Your task to perform on an android device: Open calendar and show me the third week of next month Image 0: 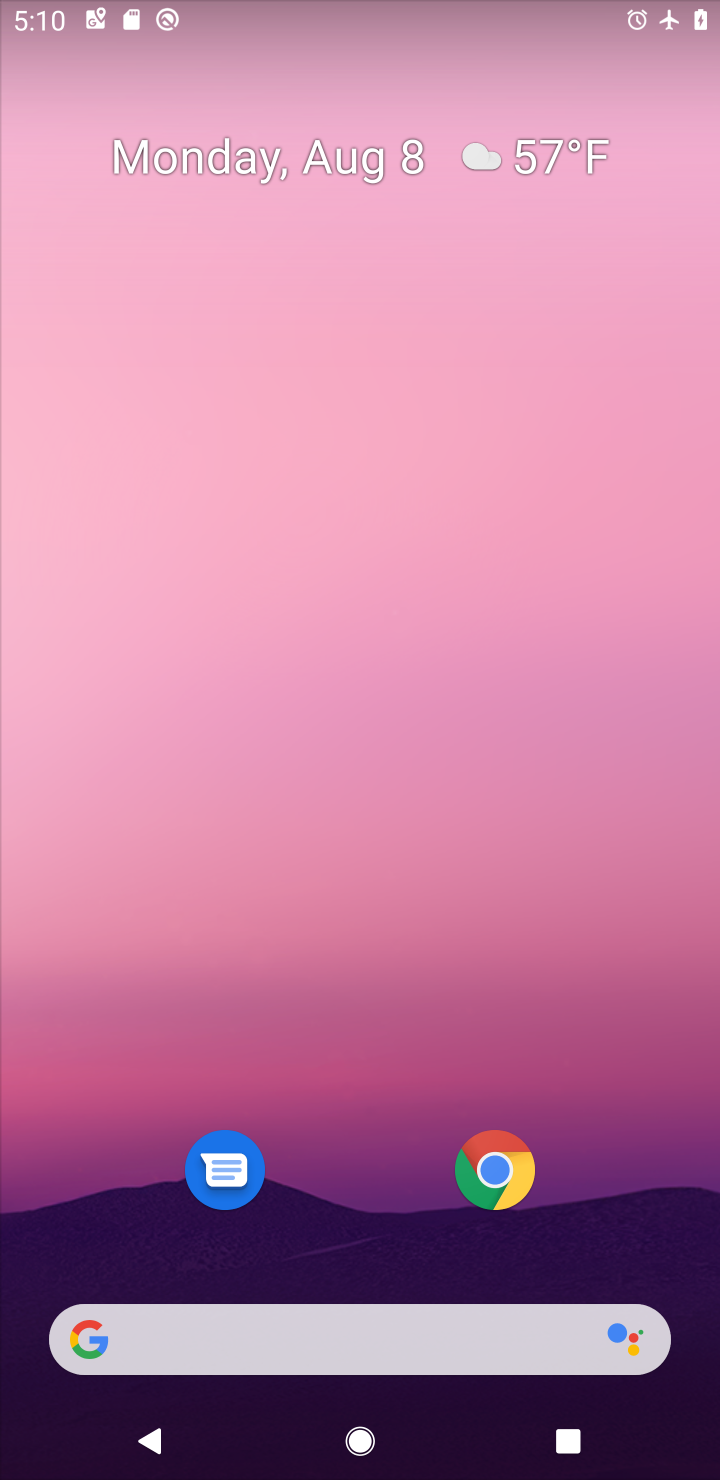
Step 0: click (523, 28)
Your task to perform on an android device: Open calendar and show me the third week of next month Image 1: 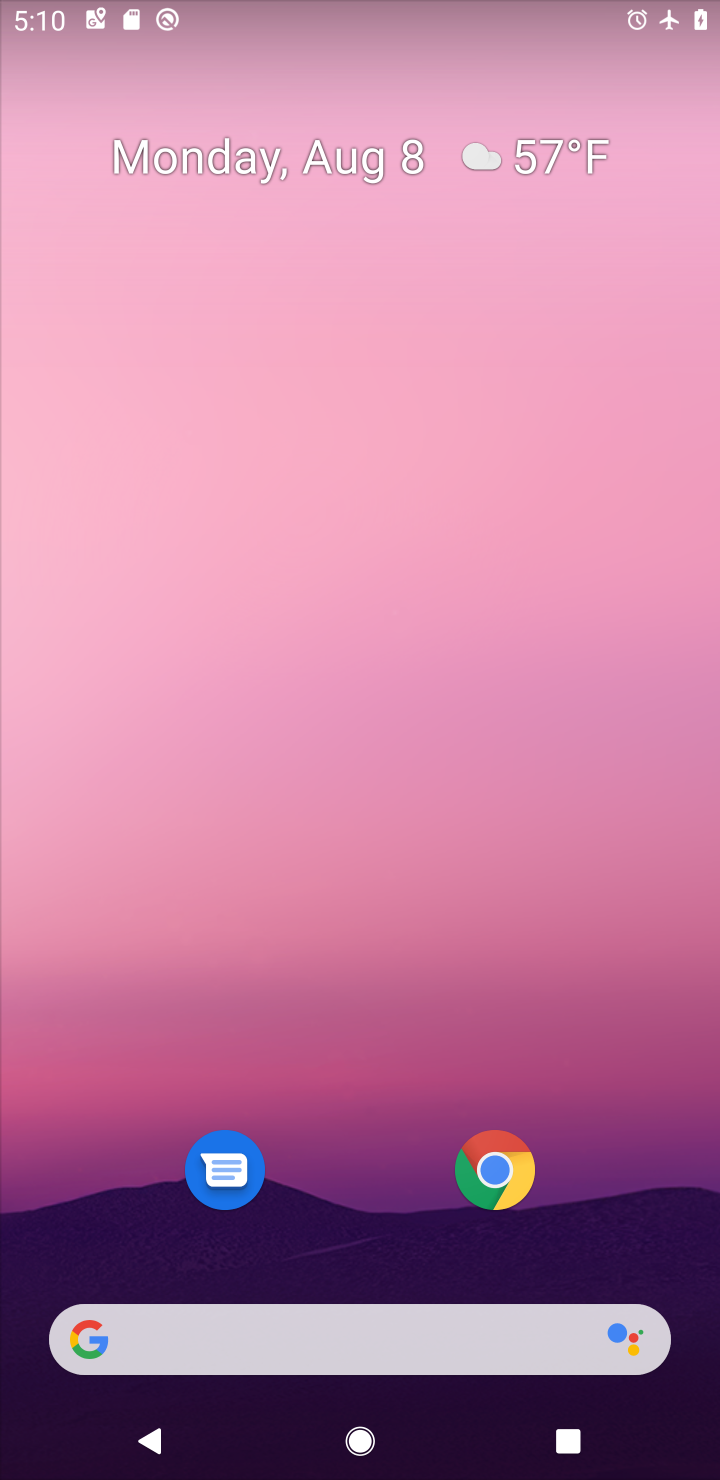
Step 1: drag from (299, 1129) to (306, 351)
Your task to perform on an android device: Open calendar and show me the third week of next month Image 2: 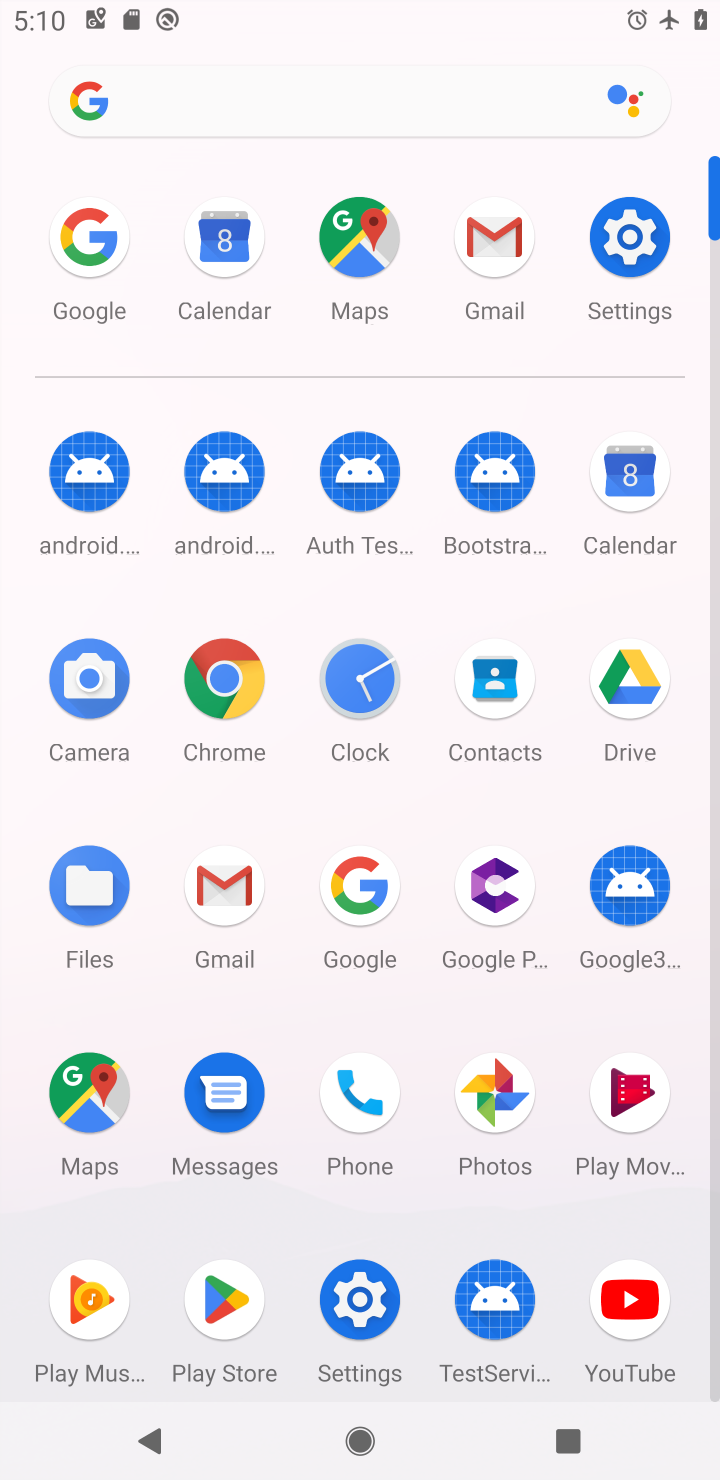
Step 2: click (632, 510)
Your task to perform on an android device: Open calendar and show me the third week of next month Image 3: 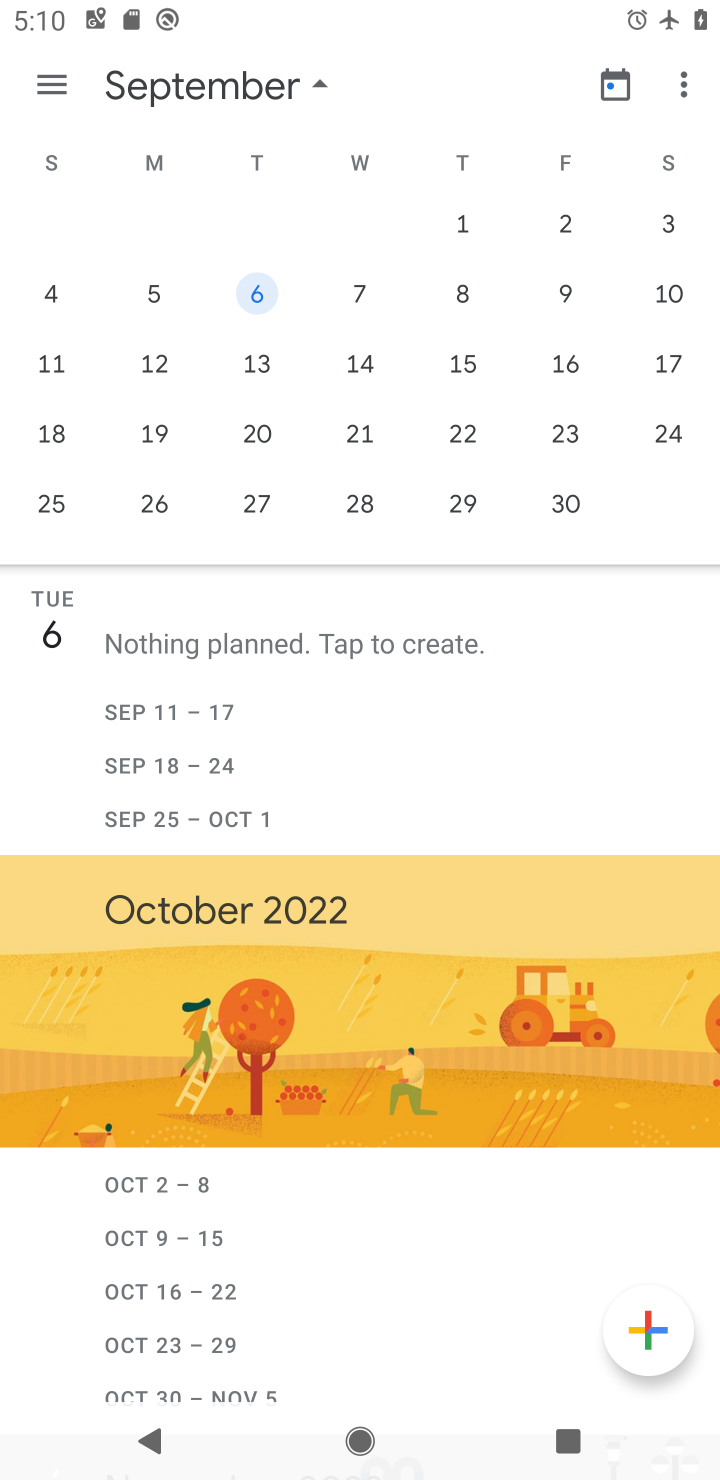
Step 3: click (53, 364)
Your task to perform on an android device: Open calendar and show me the third week of next month Image 4: 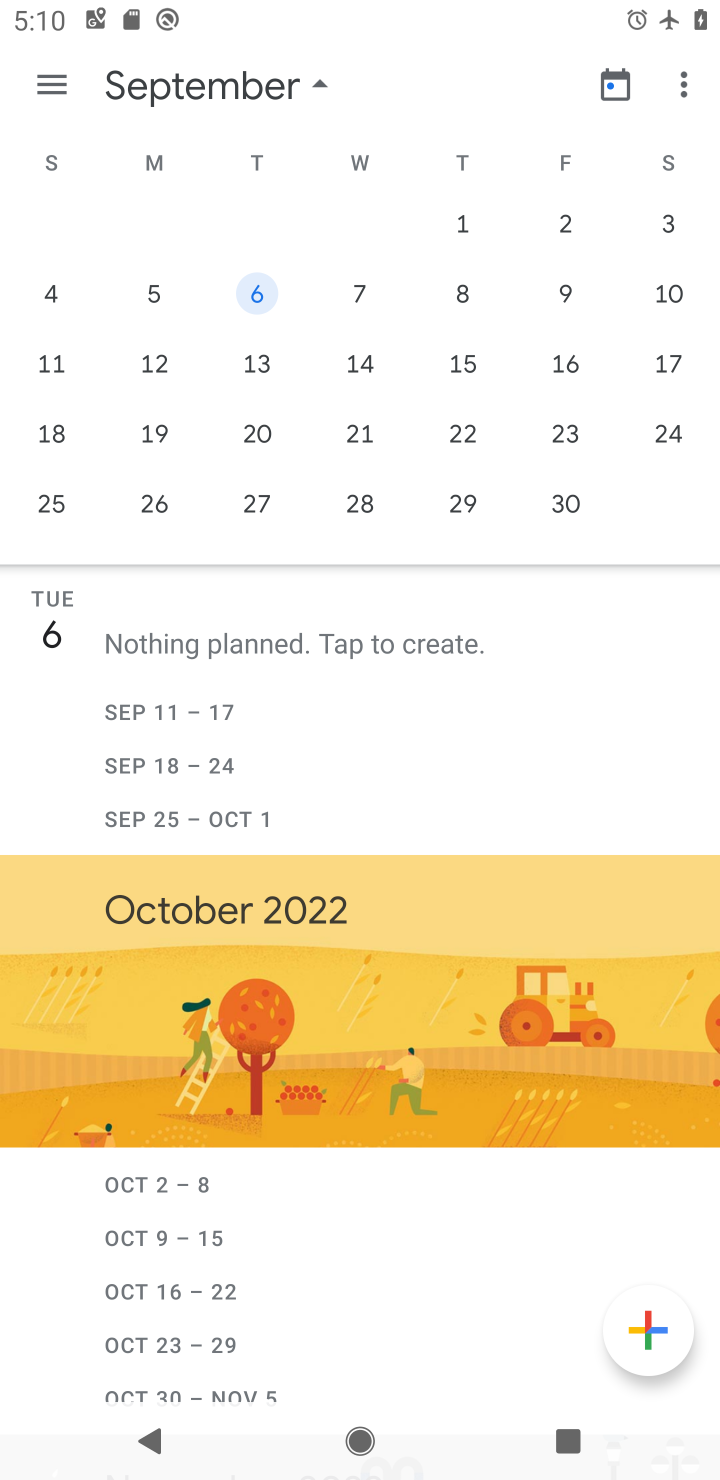
Step 4: click (53, 361)
Your task to perform on an android device: Open calendar and show me the third week of next month Image 5: 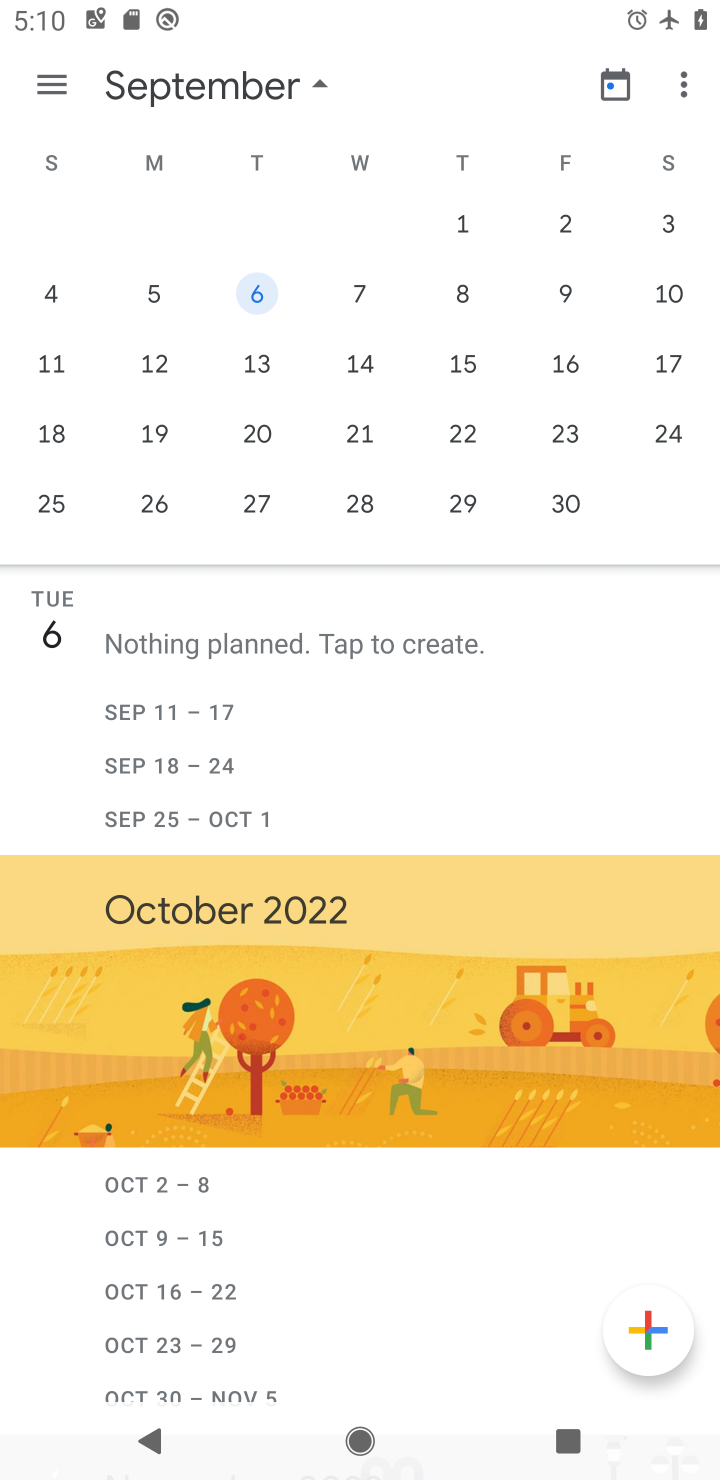
Step 5: click (134, 365)
Your task to perform on an android device: Open calendar and show me the third week of next month Image 6: 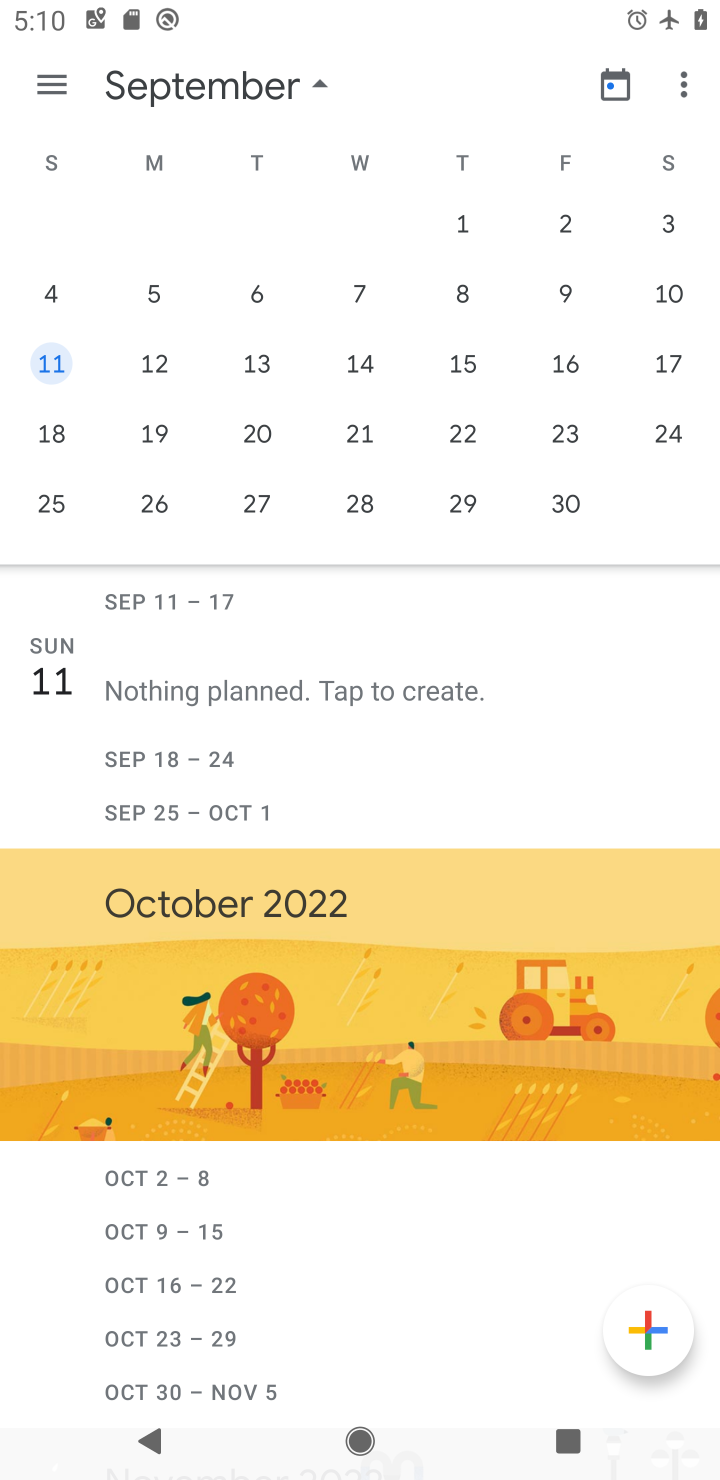
Step 6: click (50, 347)
Your task to perform on an android device: Open calendar and show me the third week of next month Image 7: 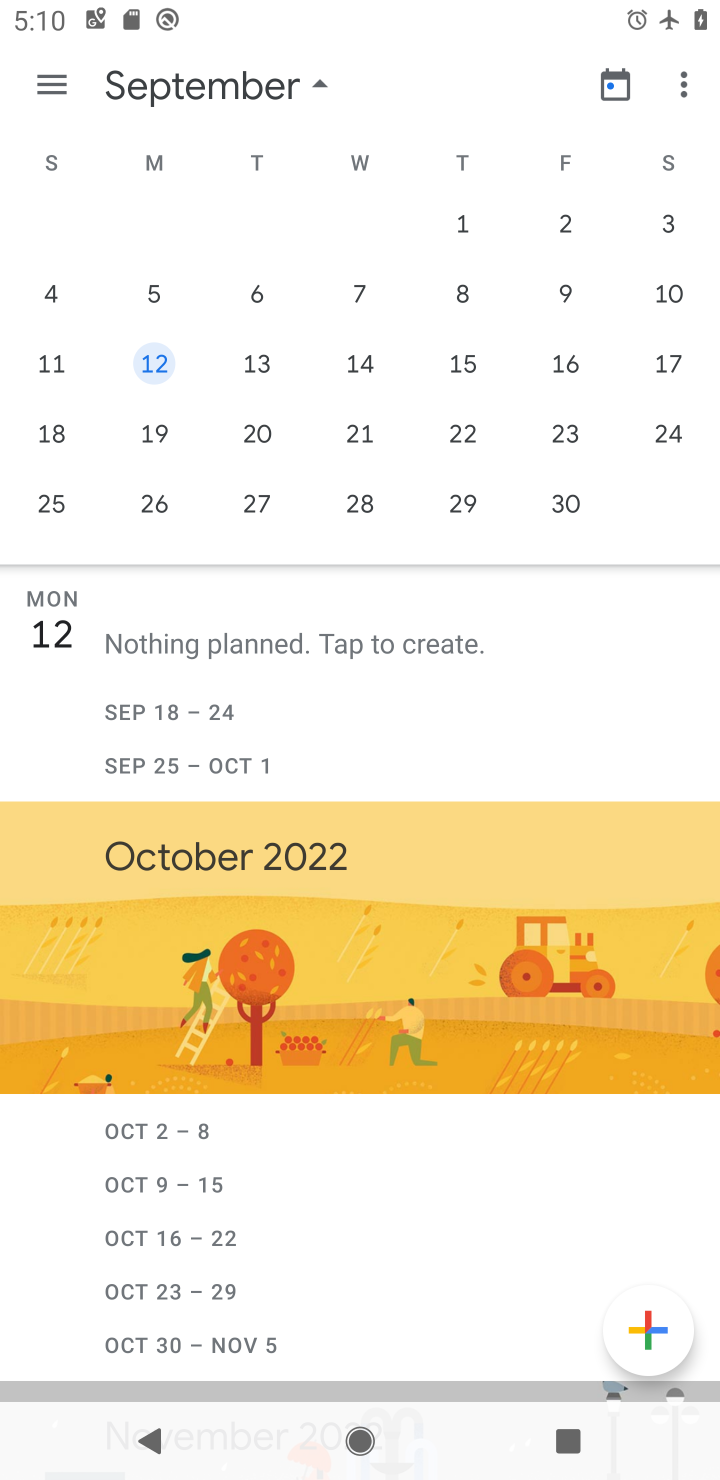
Step 7: click (103, 356)
Your task to perform on an android device: Open calendar and show me the third week of next month Image 8: 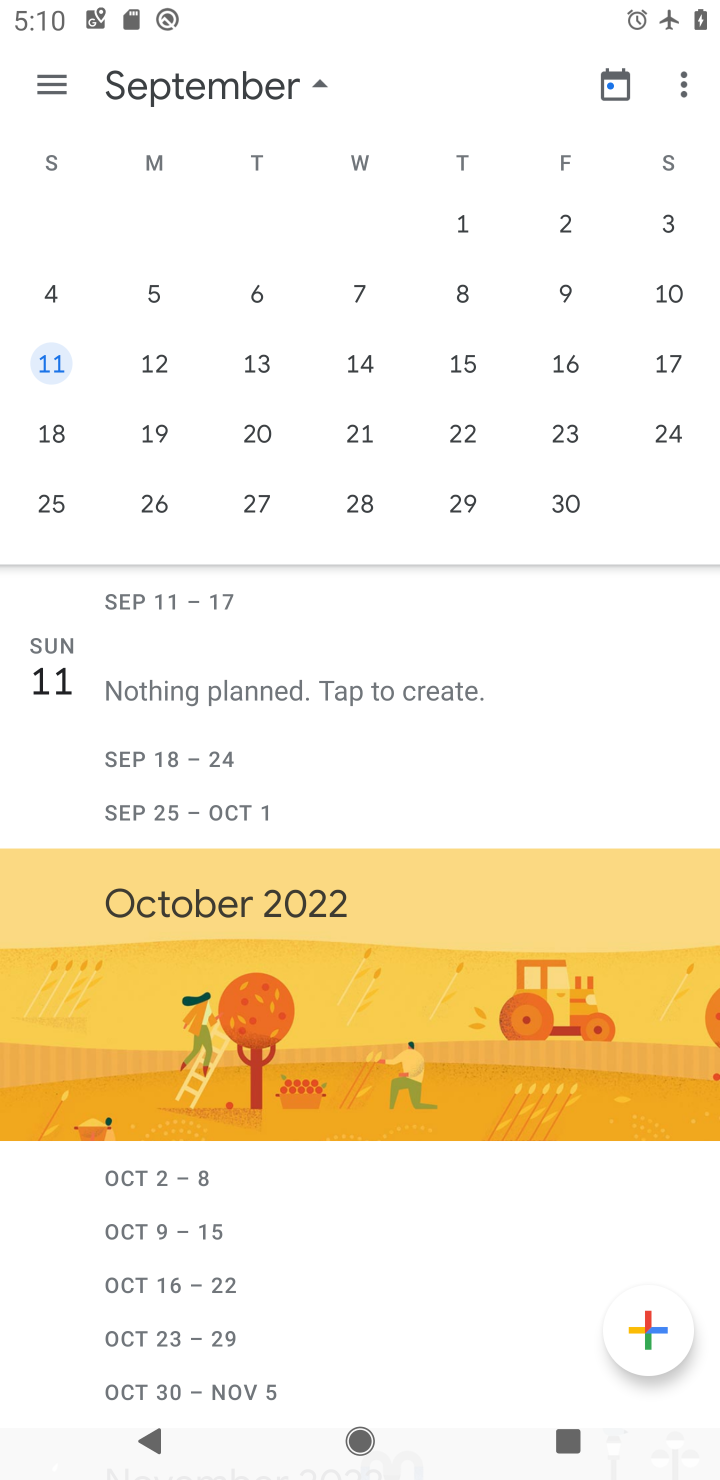
Step 8: task complete